Your task to perform on an android device: check google app version Image 0: 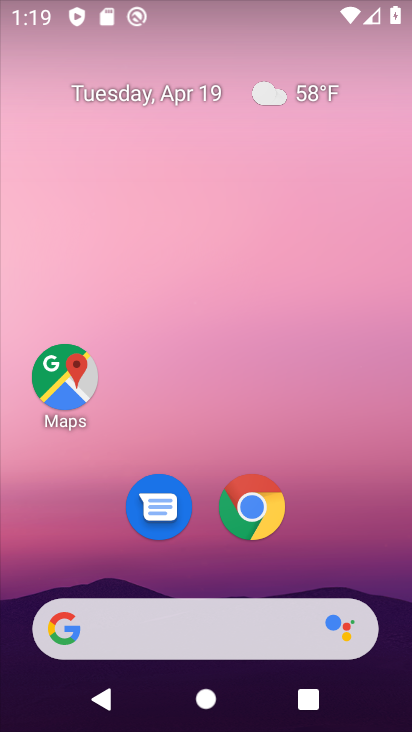
Step 0: click (191, 121)
Your task to perform on an android device: check google app version Image 1: 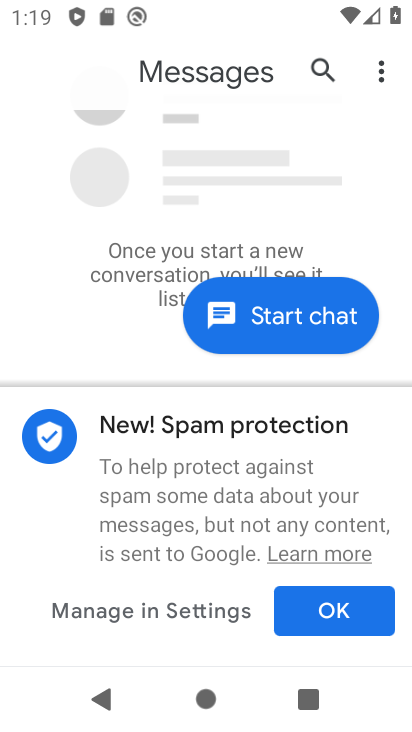
Step 1: press home button
Your task to perform on an android device: check google app version Image 2: 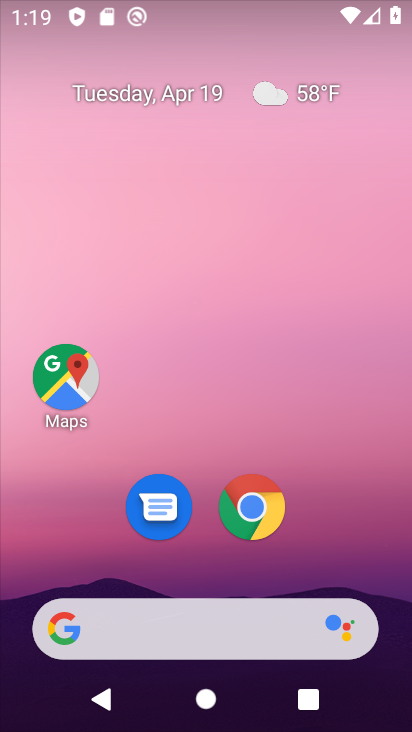
Step 2: drag from (216, 543) to (204, 123)
Your task to perform on an android device: check google app version Image 3: 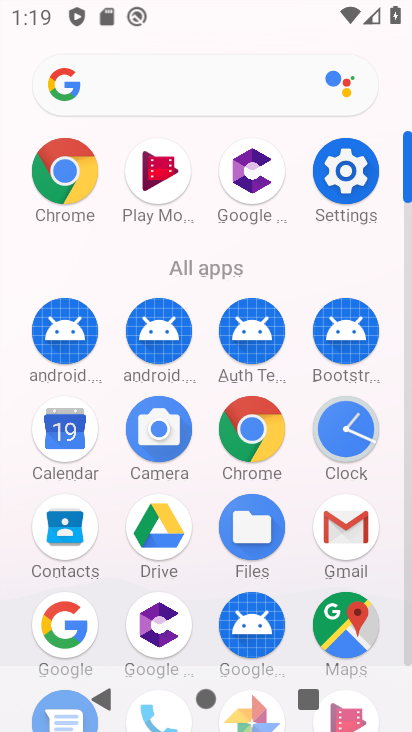
Step 3: click (64, 625)
Your task to perform on an android device: check google app version Image 4: 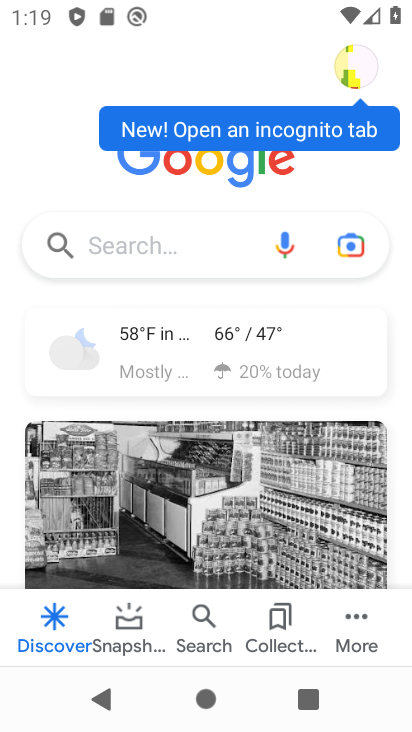
Step 4: click (358, 66)
Your task to perform on an android device: check google app version Image 5: 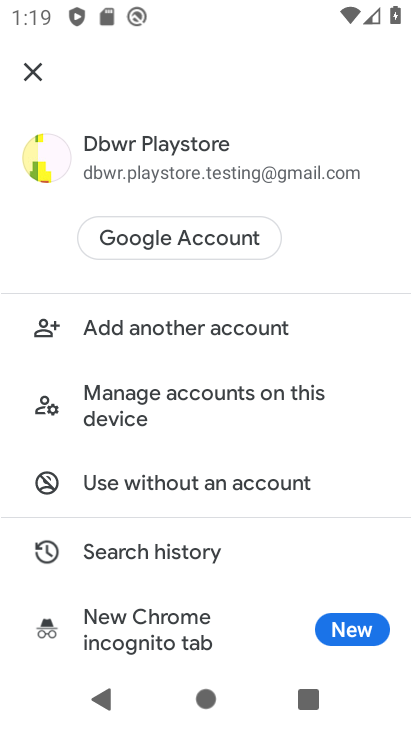
Step 5: drag from (146, 523) to (179, 67)
Your task to perform on an android device: check google app version Image 6: 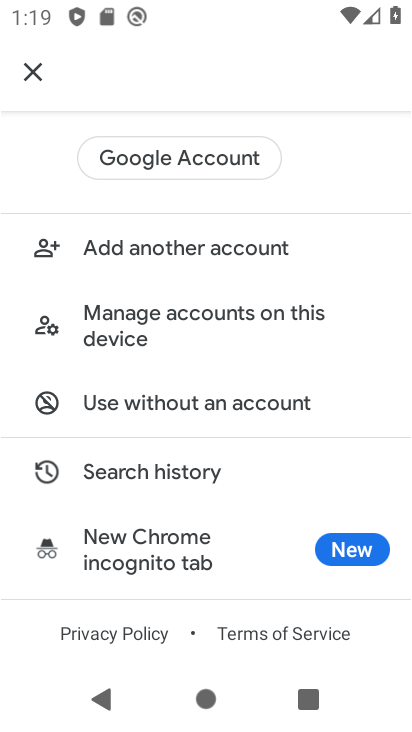
Step 6: drag from (121, 326) to (161, 588)
Your task to perform on an android device: check google app version Image 7: 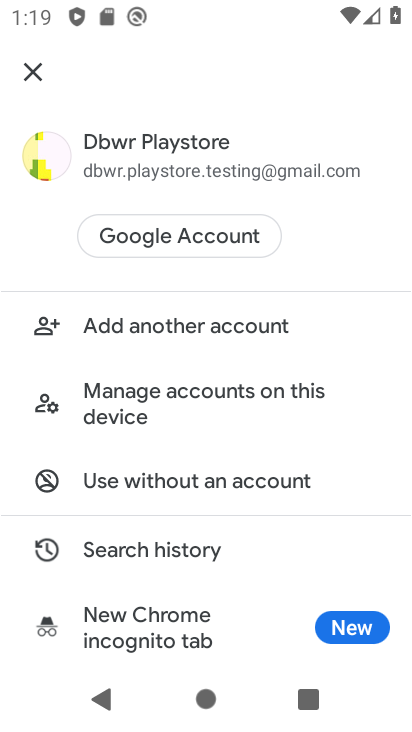
Step 7: click (34, 75)
Your task to perform on an android device: check google app version Image 8: 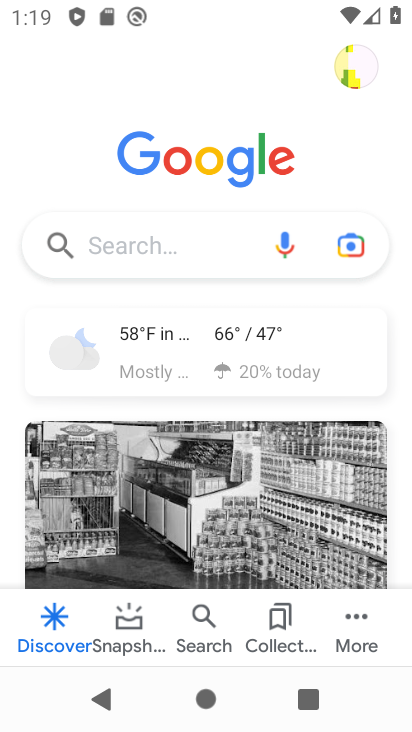
Step 8: click (365, 633)
Your task to perform on an android device: check google app version Image 9: 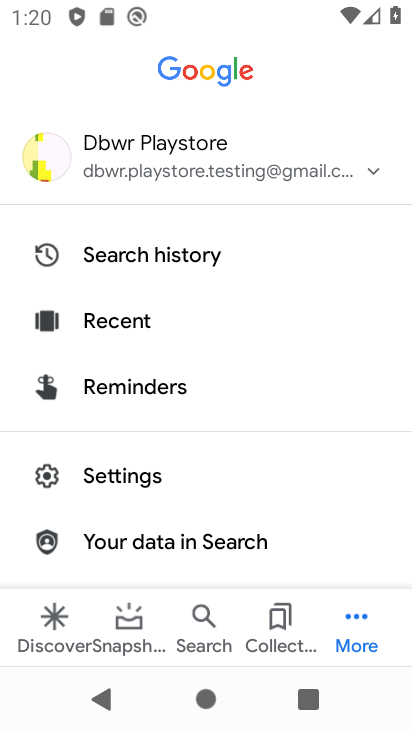
Step 9: click (126, 465)
Your task to perform on an android device: check google app version Image 10: 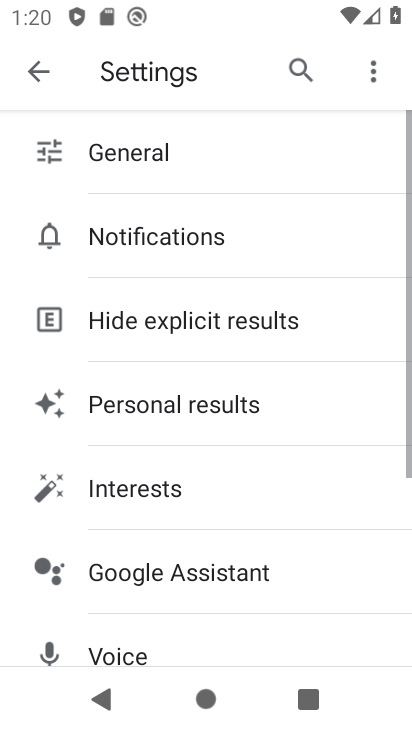
Step 10: drag from (189, 560) to (215, 65)
Your task to perform on an android device: check google app version Image 11: 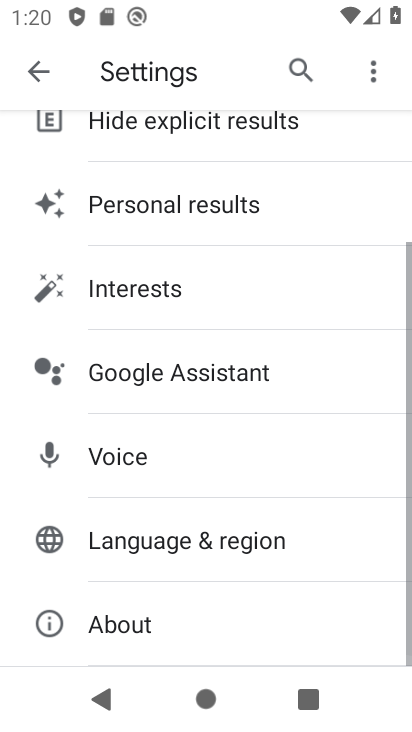
Step 11: click (132, 597)
Your task to perform on an android device: check google app version Image 12: 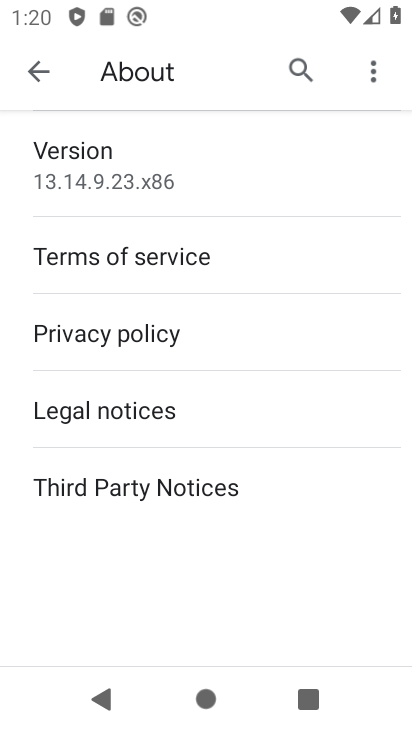
Step 12: task complete